Your task to perform on an android device: check battery use Image 0: 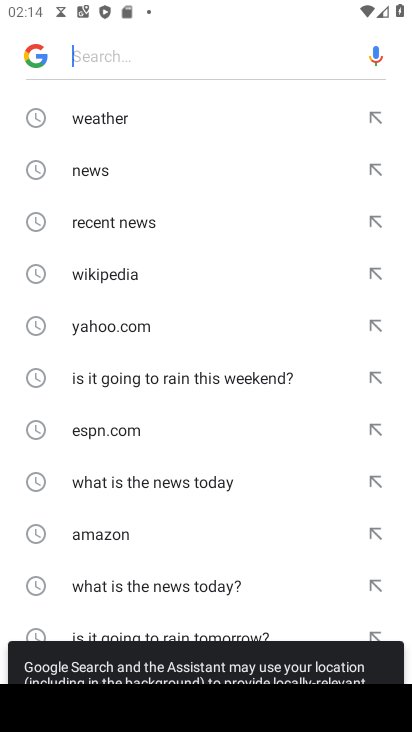
Step 0: press home button
Your task to perform on an android device: check battery use Image 1: 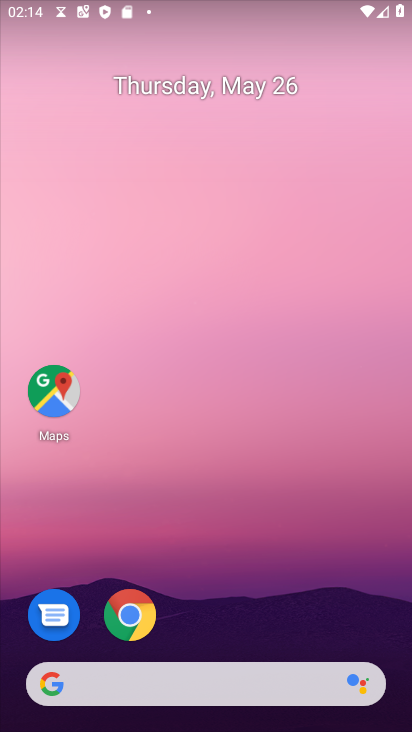
Step 1: drag from (224, 645) to (234, 56)
Your task to perform on an android device: check battery use Image 2: 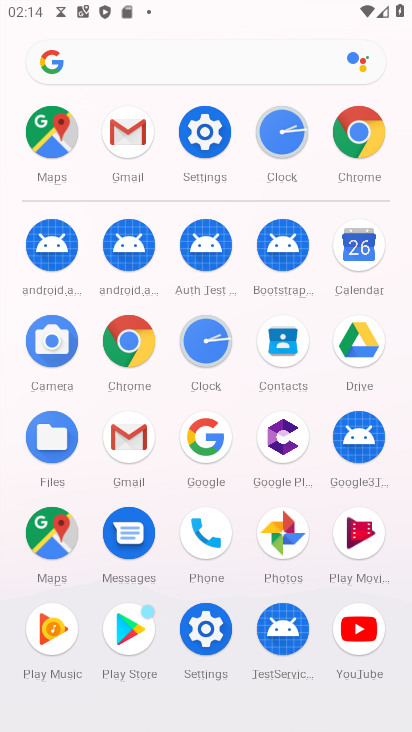
Step 2: click (202, 125)
Your task to perform on an android device: check battery use Image 3: 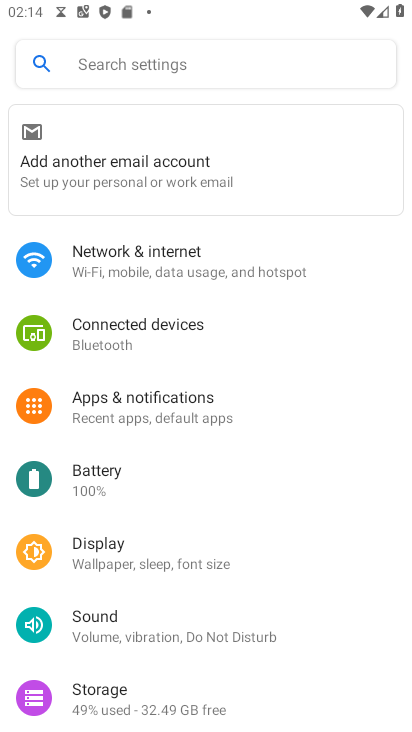
Step 3: click (128, 480)
Your task to perform on an android device: check battery use Image 4: 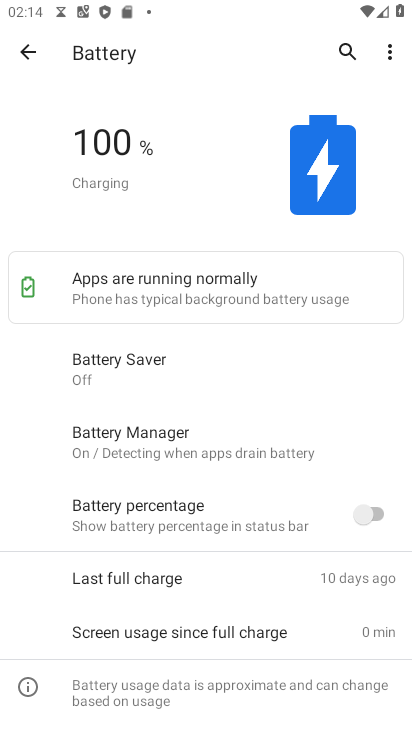
Step 4: click (392, 46)
Your task to perform on an android device: check battery use Image 5: 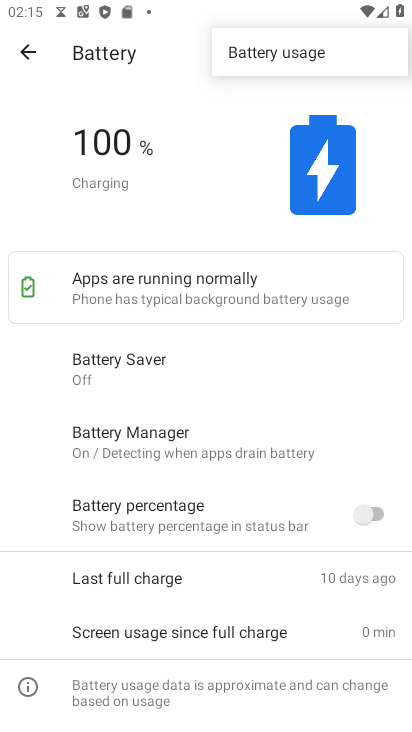
Step 5: click (277, 58)
Your task to perform on an android device: check battery use Image 6: 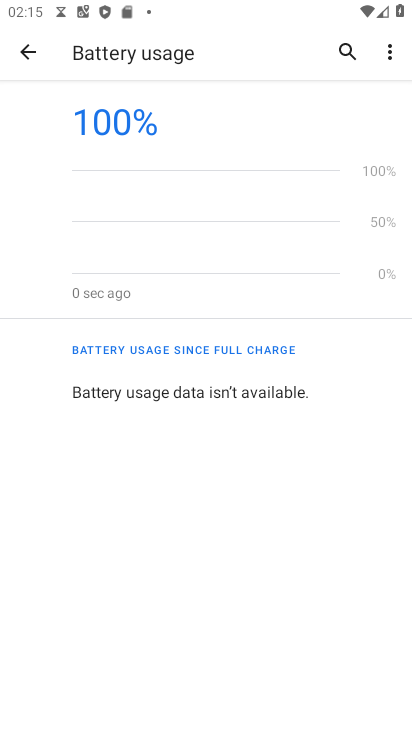
Step 6: task complete